Your task to perform on an android device: Open calendar and show me the fourth week of next month Image 0: 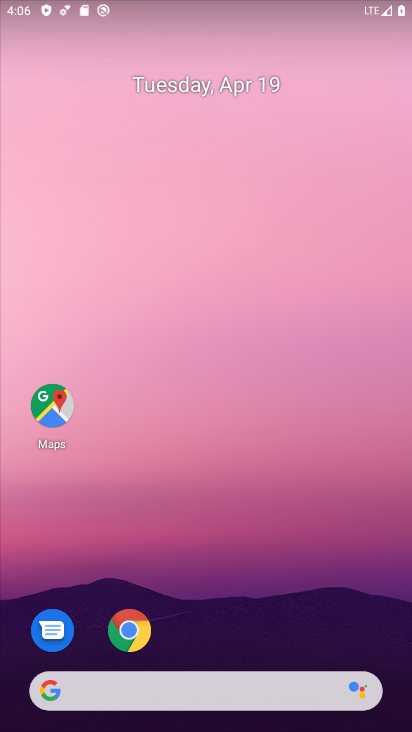
Step 0: drag from (209, 616) to (205, 209)
Your task to perform on an android device: Open calendar and show me the fourth week of next month Image 1: 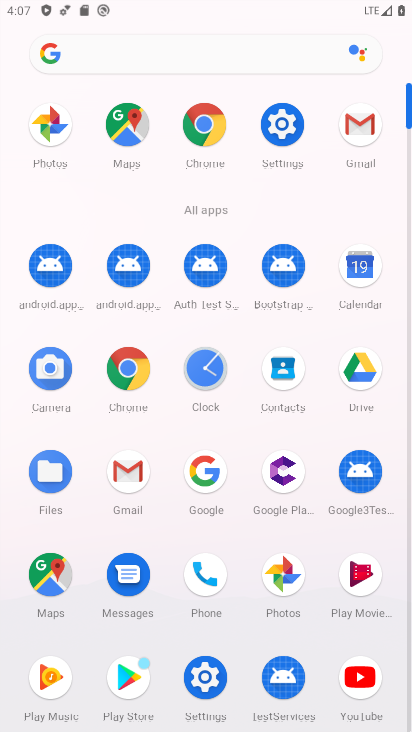
Step 1: click (356, 272)
Your task to perform on an android device: Open calendar and show me the fourth week of next month Image 2: 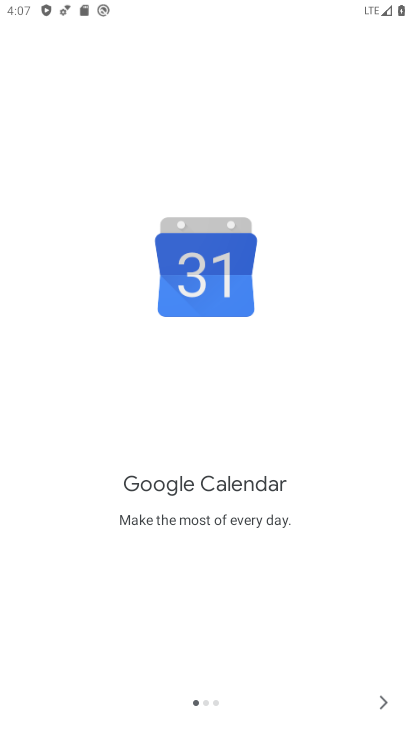
Step 2: click (376, 694)
Your task to perform on an android device: Open calendar and show me the fourth week of next month Image 3: 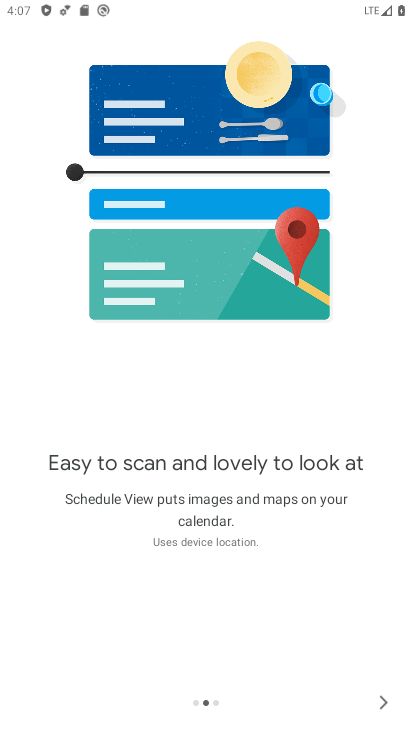
Step 3: click (376, 694)
Your task to perform on an android device: Open calendar and show me the fourth week of next month Image 4: 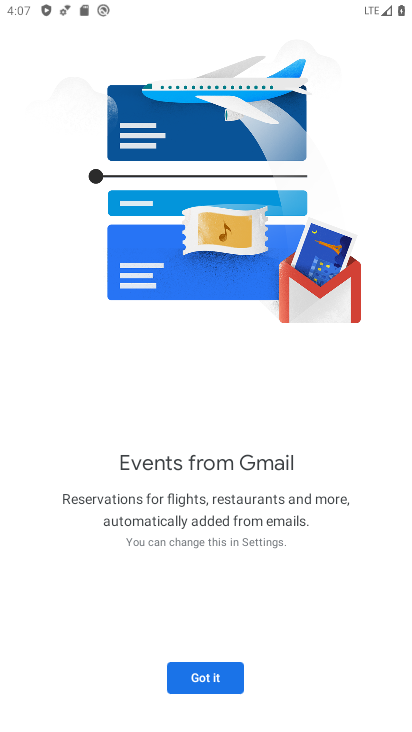
Step 4: click (230, 672)
Your task to perform on an android device: Open calendar and show me the fourth week of next month Image 5: 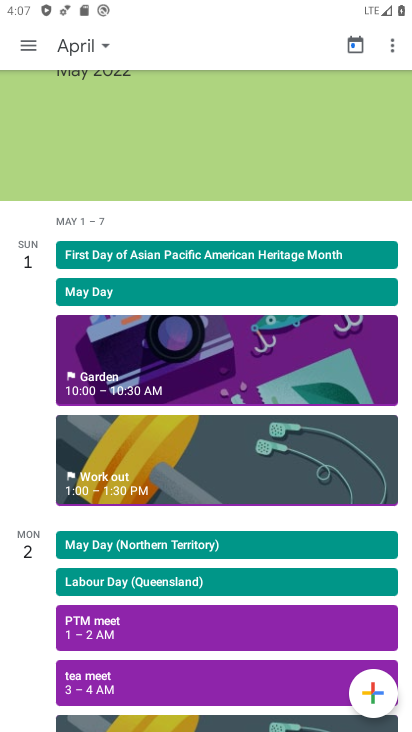
Step 5: click (94, 46)
Your task to perform on an android device: Open calendar and show me the fourth week of next month Image 6: 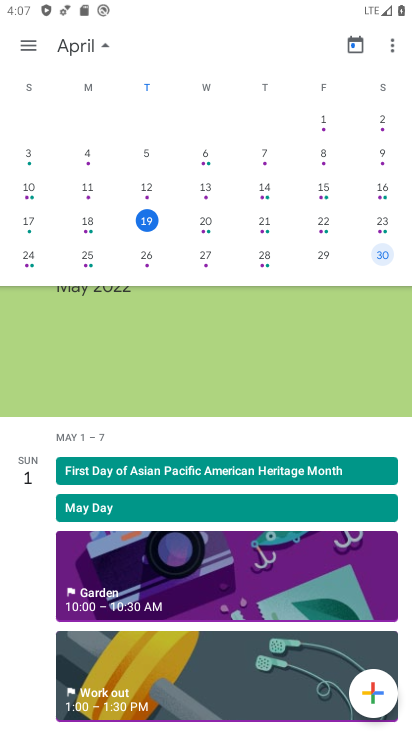
Step 6: drag from (343, 198) to (39, 134)
Your task to perform on an android device: Open calendar and show me the fourth week of next month Image 7: 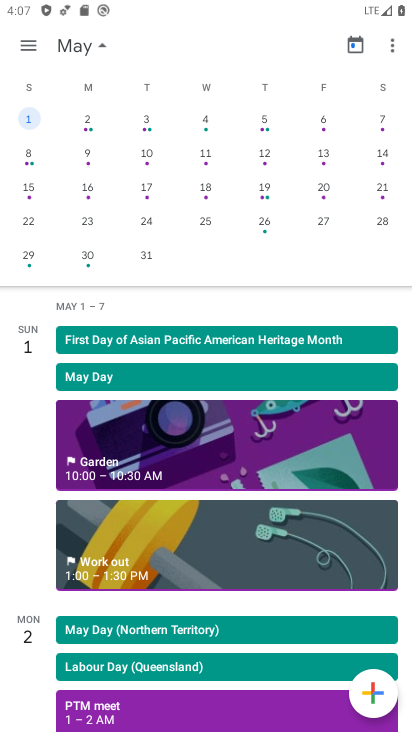
Step 7: click (88, 220)
Your task to perform on an android device: Open calendar and show me the fourth week of next month Image 8: 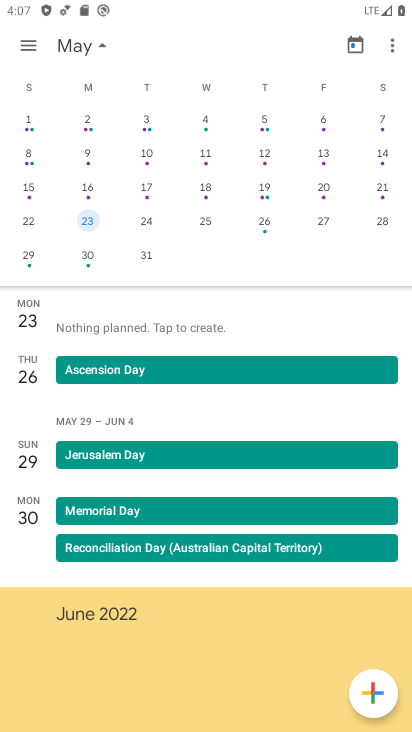
Step 8: task complete